Your task to perform on an android device: Do I have any events this weekend? Image 0: 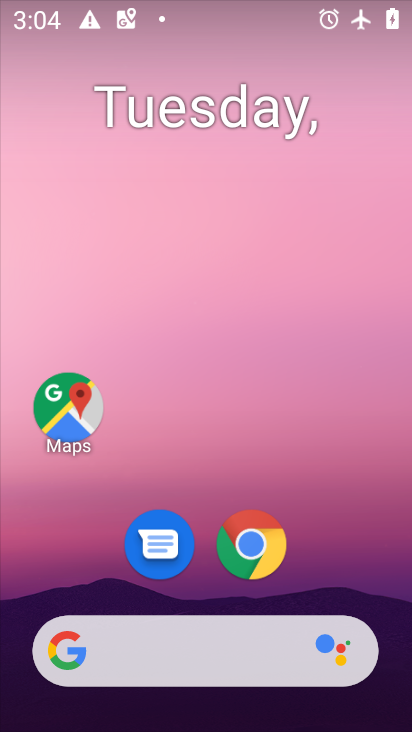
Step 0: click (175, 122)
Your task to perform on an android device: Do I have any events this weekend? Image 1: 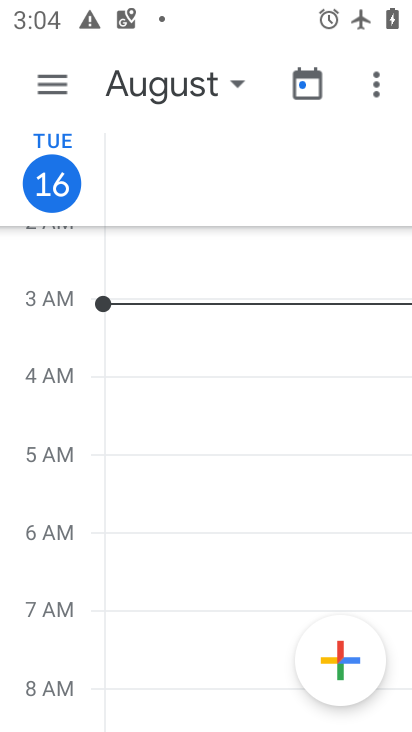
Step 1: click (160, 81)
Your task to perform on an android device: Do I have any events this weekend? Image 2: 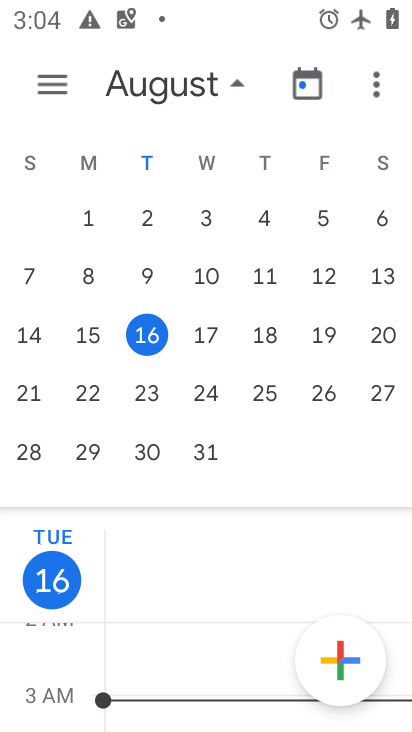
Step 2: click (385, 338)
Your task to perform on an android device: Do I have any events this weekend? Image 3: 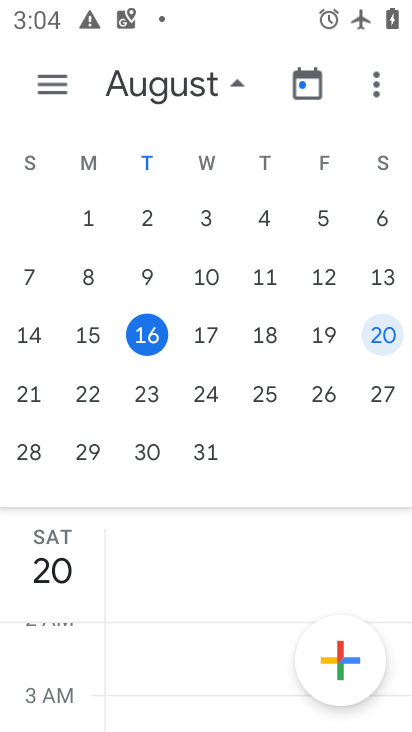
Step 3: task complete